Your task to perform on an android device: turn on translation in the chrome app Image 0: 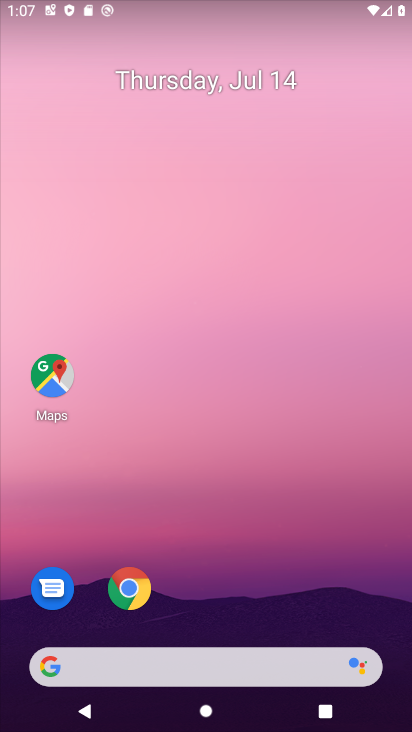
Step 0: drag from (229, 532) to (134, 60)
Your task to perform on an android device: turn on translation in the chrome app Image 1: 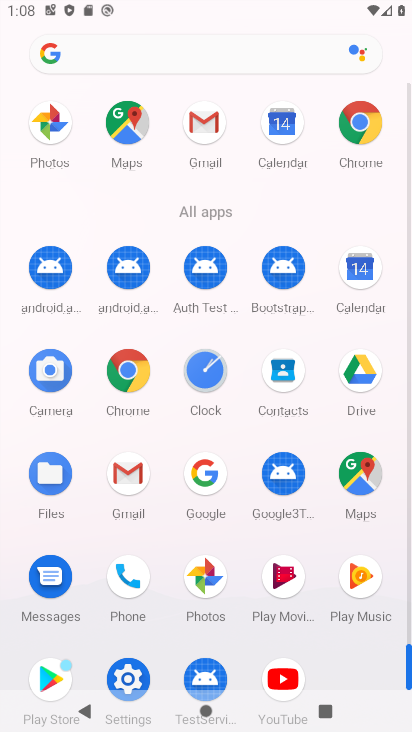
Step 1: click (351, 137)
Your task to perform on an android device: turn on translation in the chrome app Image 2: 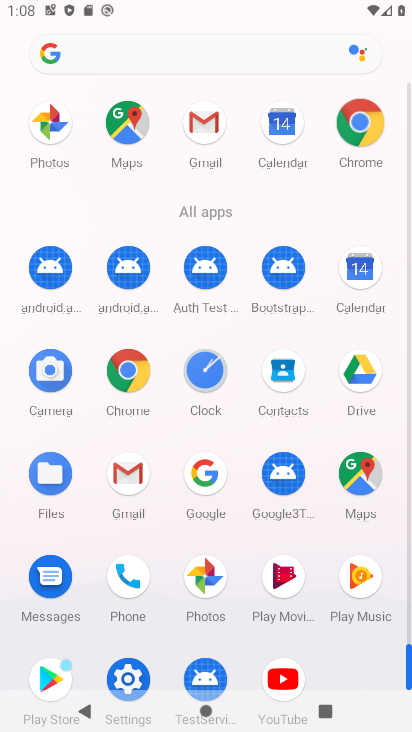
Step 2: click (353, 133)
Your task to perform on an android device: turn on translation in the chrome app Image 3: 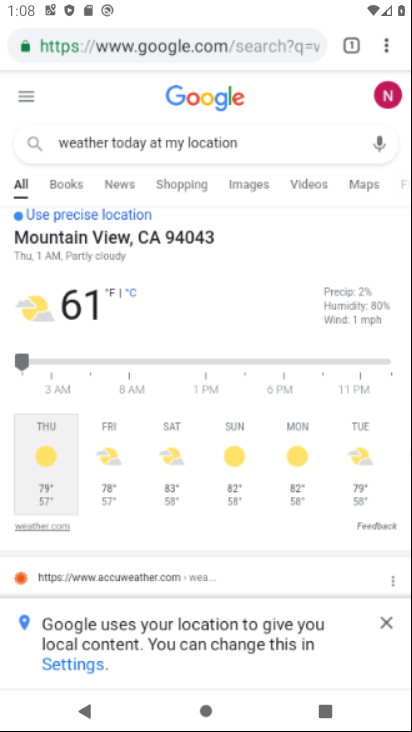
Step 3: click (358, 134)
Your task to perform on an android device: turn on translation in the chrome app Image 4: 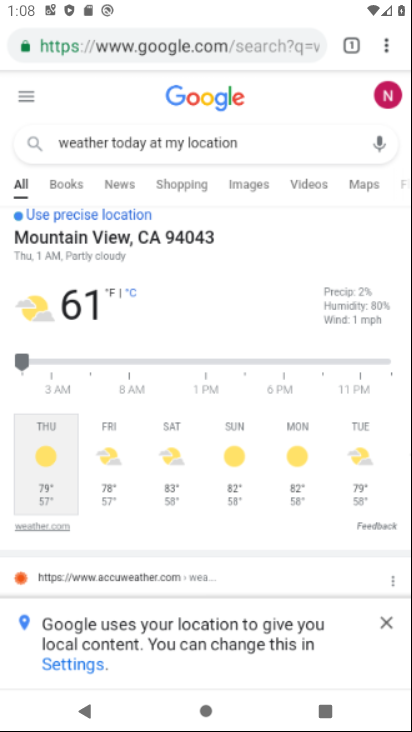
Step 4: click (358, 134)
Your task to perform on an android device: turn on translation in the chrome app Image 5: 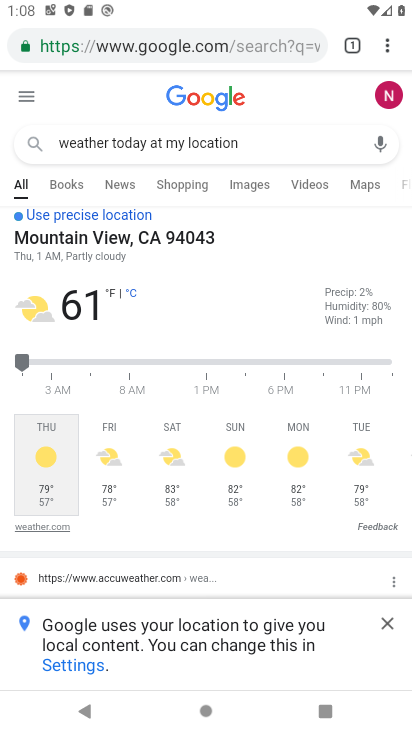
Step 5: drag from (387, 42) to (217, 548)
Your task to perform on an android device: turn on translation in the chrome app Image 6: 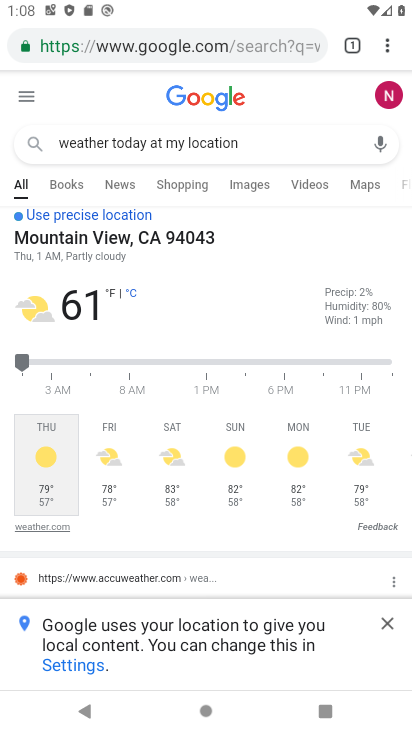
Step 6: click (216, 550)
Your task to perform on an android device: turn on translation in the chrome app Image 7: 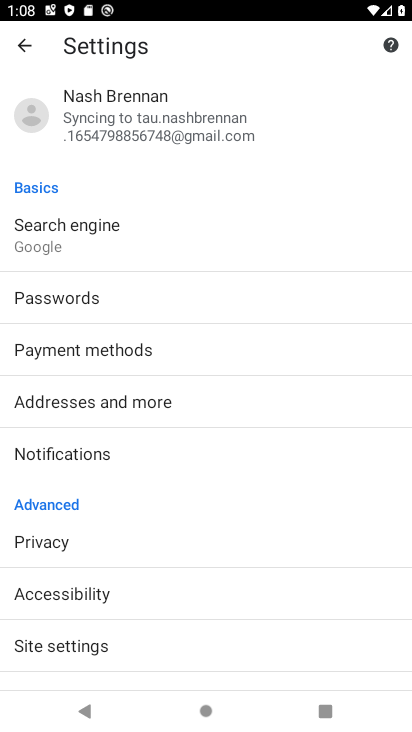
Step 7: drag from (82, 397) to (120, 214)
Your task to perform on an android device: turn on translation in the chrome app Image 8: 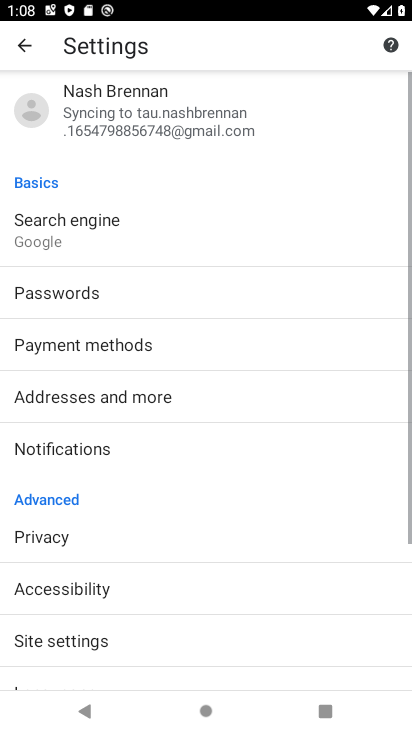
Step 8: click (91, 176)
Your task to perform on an android device: turn on translation in the chrome app Image 9: 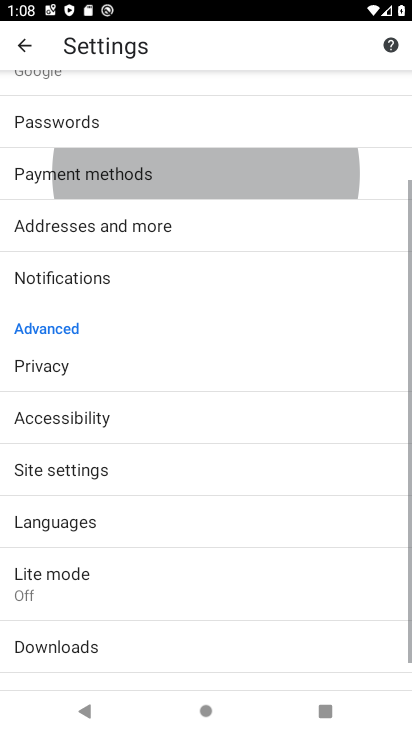
Step 9: drag from (145, 303) to (114, 177)
Your task to perform on an android device: turn on translation in the chrome app Image 10: 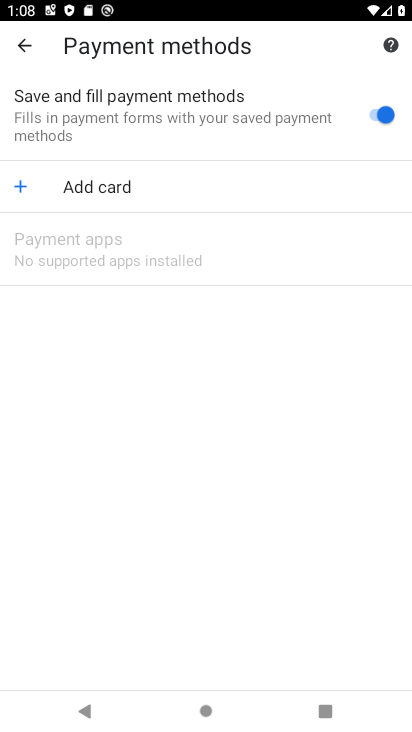
Step 10: click (23, 36)
Your task to perform on an android device: turn on translation in the chrome app Image 11: 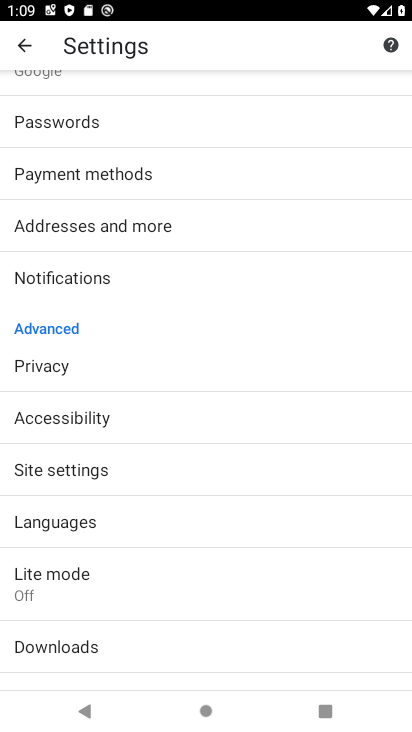
Step 11: click (66, 518)
Your task to perform on an android device: turn on translation in the chrome app Image 12: 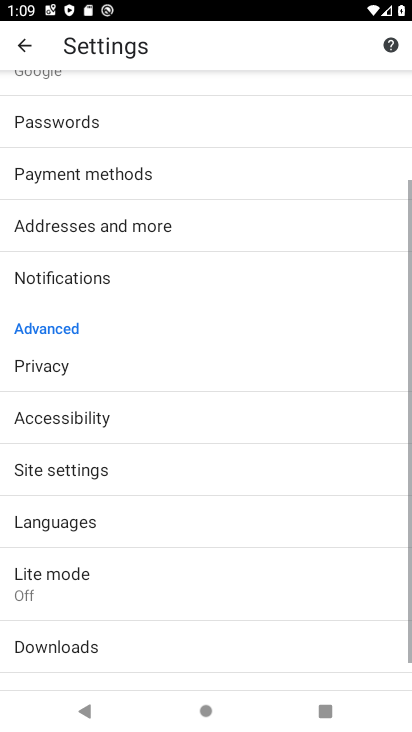
Step 12: click (65, 517)
Your task to perform on an android device: turn on translation in the chrome app Image 13: 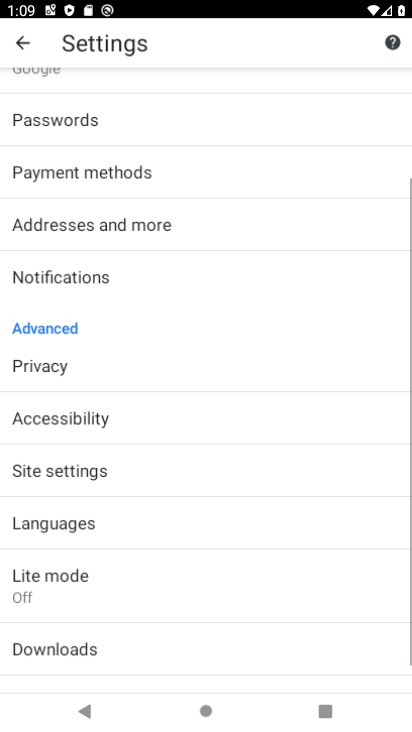
Step 13: click (69, 518)
Your task to perform on an android device: turn on translation in the chrome app Image 14: 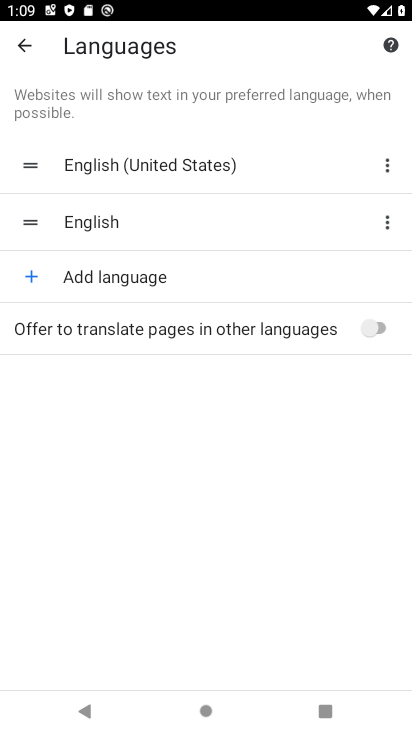
Step 14: click (71, 519)
Your task to perform on an android device: turn on translation in the chrome app Image 15: 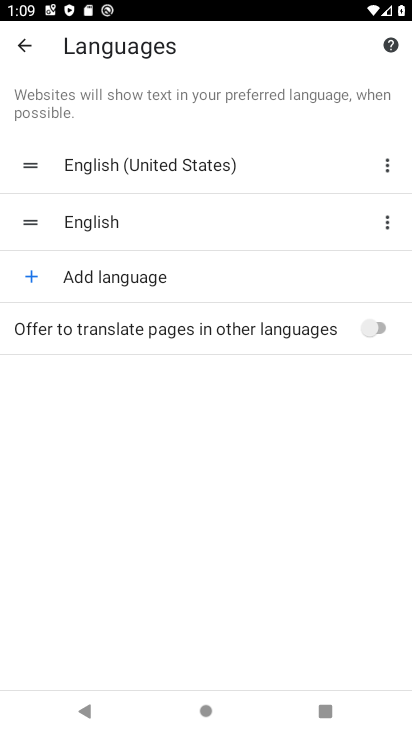
Step 15: click (360, 323)
Your task to perform on an android device: turn on translation in the chrome app Image 16: 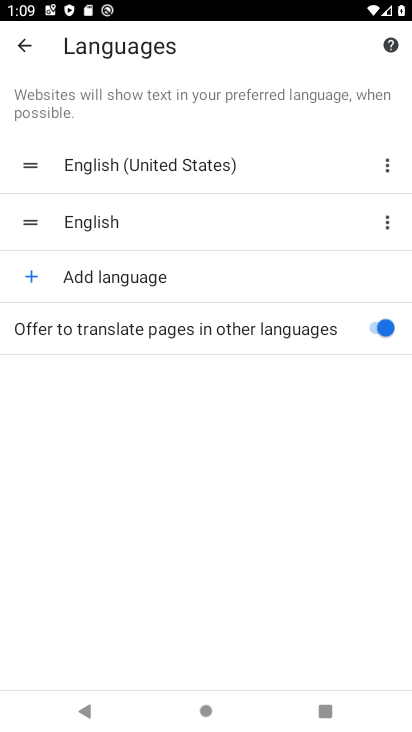
Step 16: task complete